Your task to perform on an android device: delete the emails in spam in the gmail app Image 0: 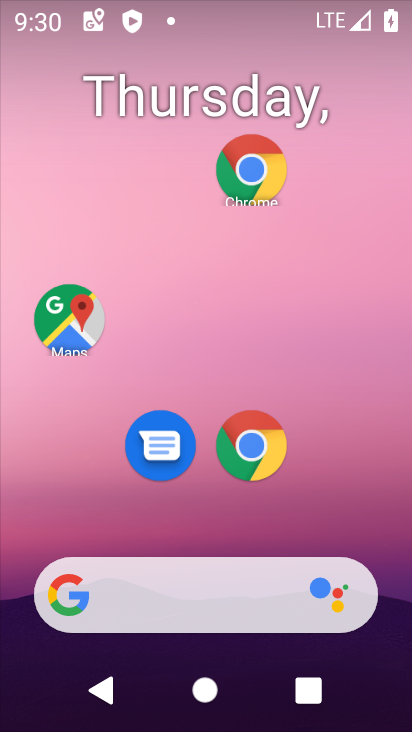
Step 0: drag from (224, 520) to (136, 11)
Your task to perform on an android device: delete the emails in spam in the gmail app Image 1: 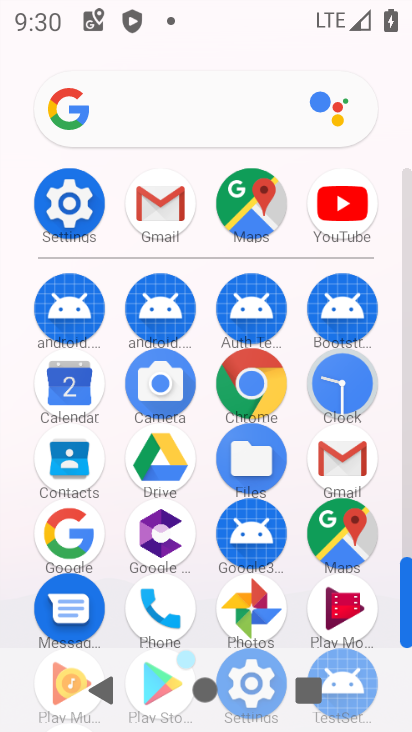
Step 1: click (345, 475)
Your task to perform on an android device: delete the emails in spam in the gmail app Image 2: 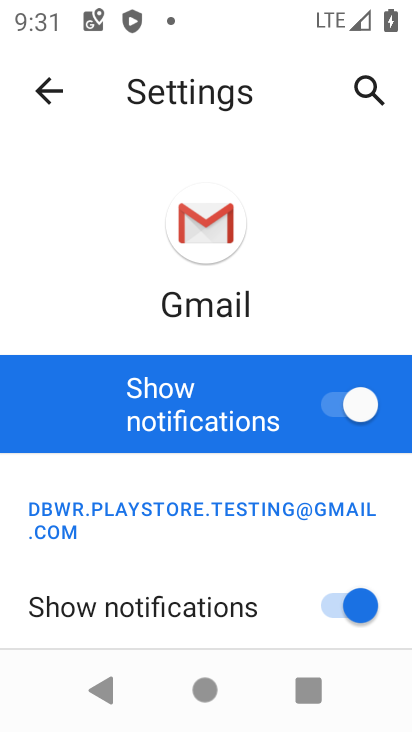
Step 2: click (52, 86)
Your task to perform on an android device: delete the emails in spam in the gmail app Image 3: 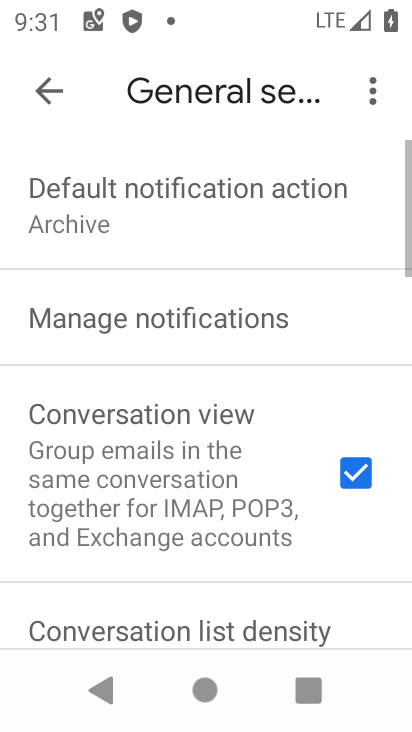
Step 3: click (52, 86)
Your task to perform on an android device: delete the emails in spam in the gmail app Image 4: 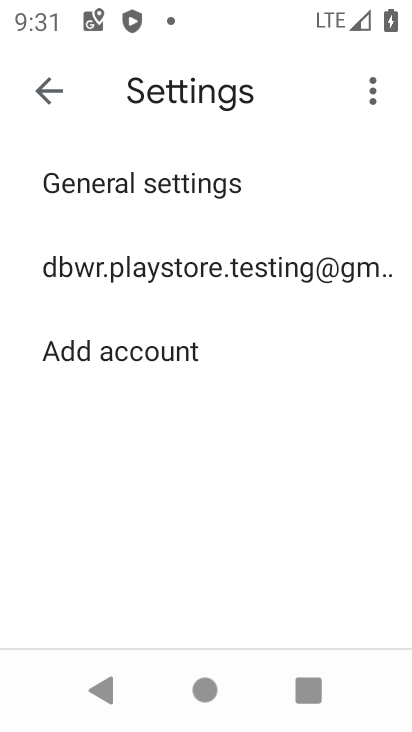
Step 4: click (52, 86)
Your task to perform on an android device: delete the emails in spam in the gmail app Image 5: 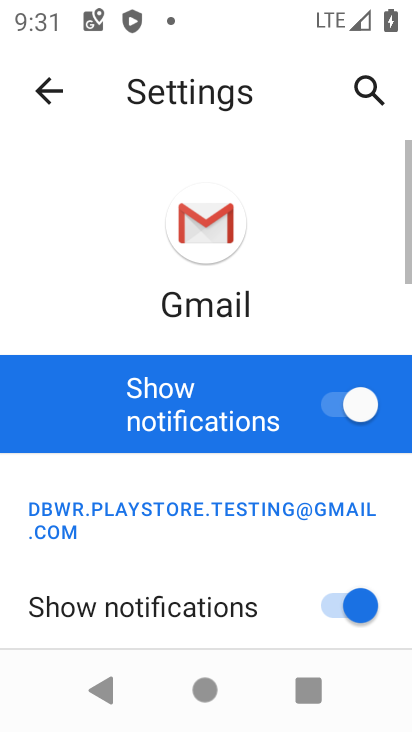
Step 5: click (52, 86)
Your task to perform on an android device: delete the emails in spam in the gmail app Image 6: 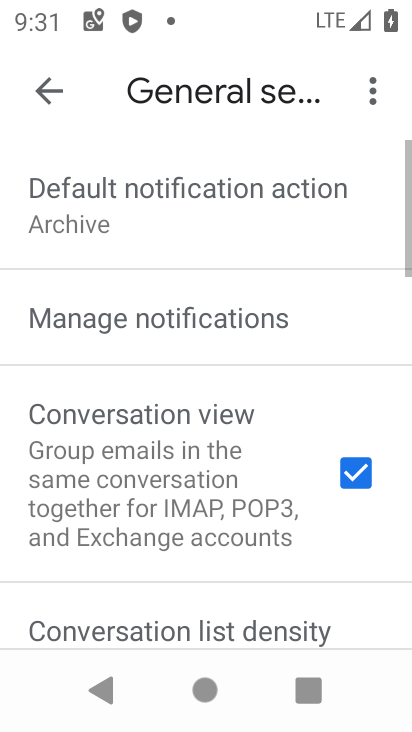
Step 6: click (52, 86)
Your task to perform on an android device: delete the emails in spam in the gmail app Image 7: 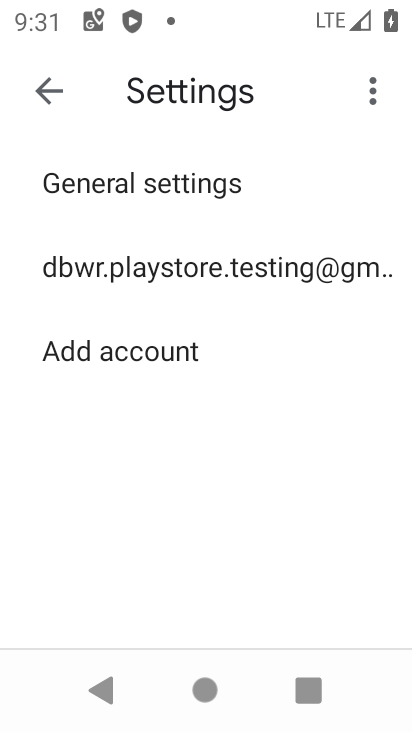
Step 7: click (52, 86)
Your task to perform on an android device: delete the emails in spam in the gmail app Image 8: 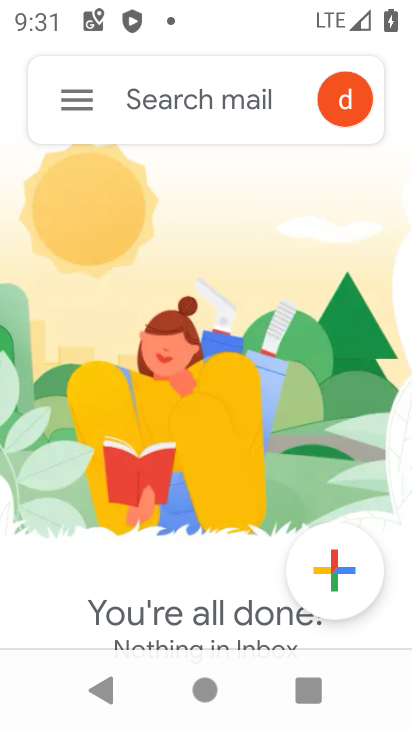
Step 8: click (52, 86)
Your task to perform on an android device: delete the emails in spam in the gmail app Image 9: 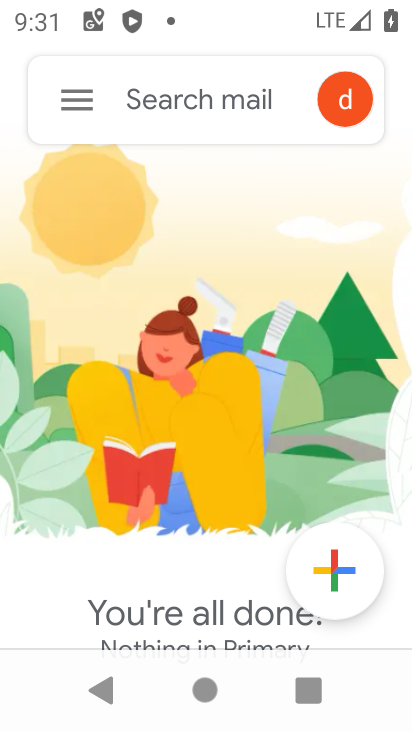
Step 9: click (69, 97)
Your task to perform on an android device: delete the emails in spam in the gmail app Image 10: 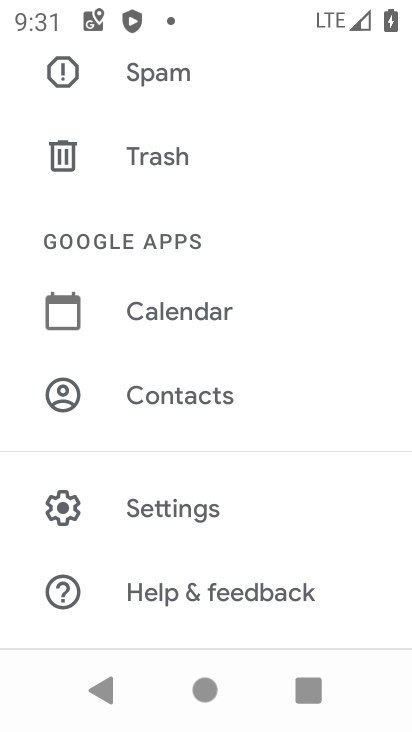
Step 10: click (154, 86)
Your task to perform on an android device: delete the emails in spam in the gmail app Image 11: 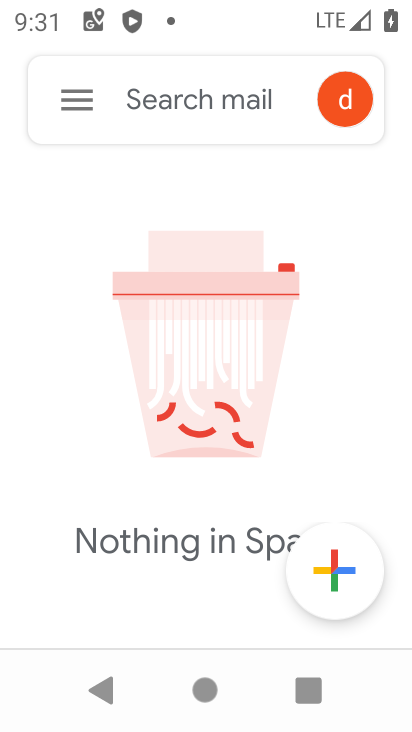
Step 11: task complete